Your task to perform on an android device: What's the weather? Image 0: 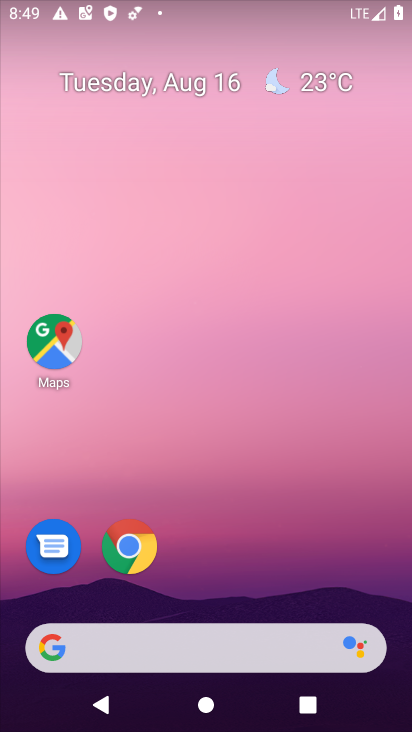
Step 0: click (328, 80)
Your task to perform on an android device: What's the weather? Image 1: 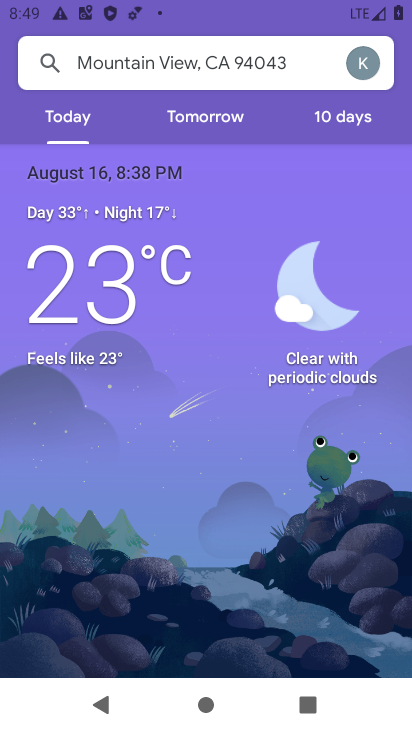
Step 1: task complete